Your task to perform on an android device: Open Android settings Image 0: 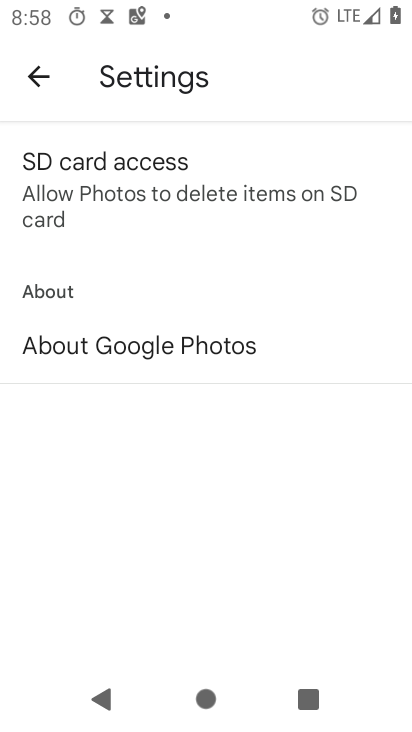
Step 0: press home button
Your task to perform on an android device: Open Android settings Image 1: 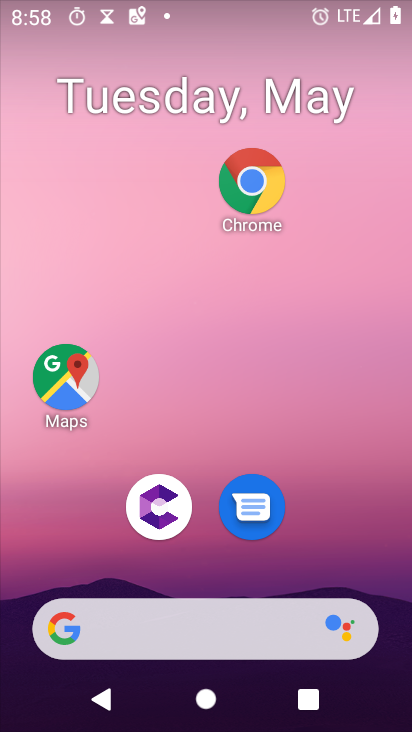
Step 1: drag from (328, 553) to (297, 112)
Your task to perform on an android device: Open Android settings Image 2: 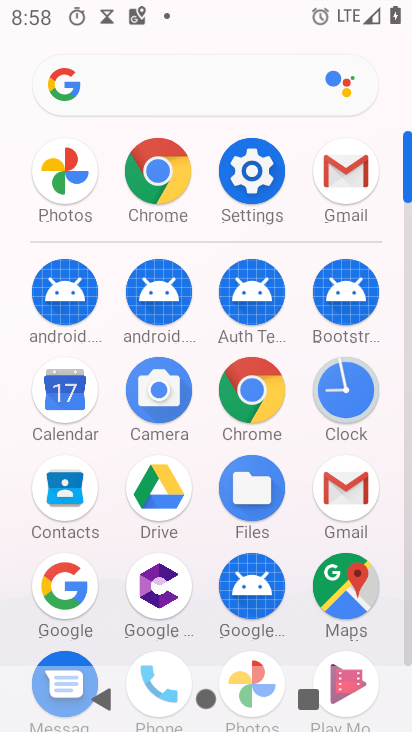
Step 2: click (269, 182)
Your task to perform on an android device: Open Android settings Image 3: 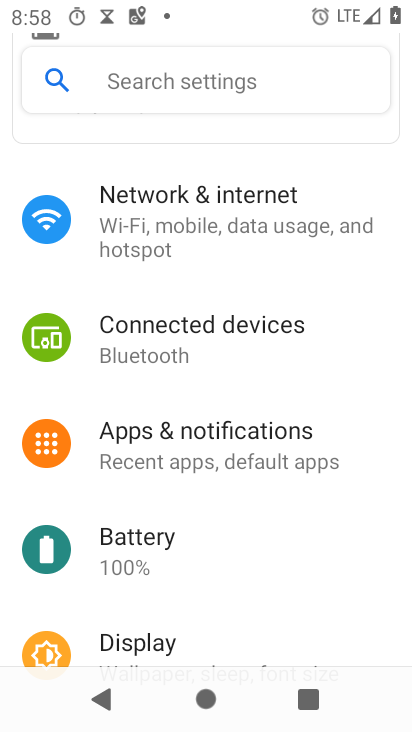
Step 3: drag from (181, 537) to (230, 328)
Your task to perform on an android device: Open Android settings Image 4: 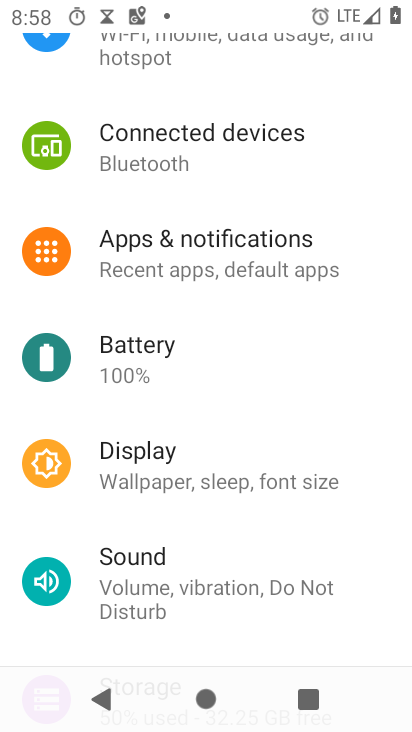
Step 4: drag from (157, 568) to (217, 405)
Your task to perform on an android device: Open Android settings Image 5: 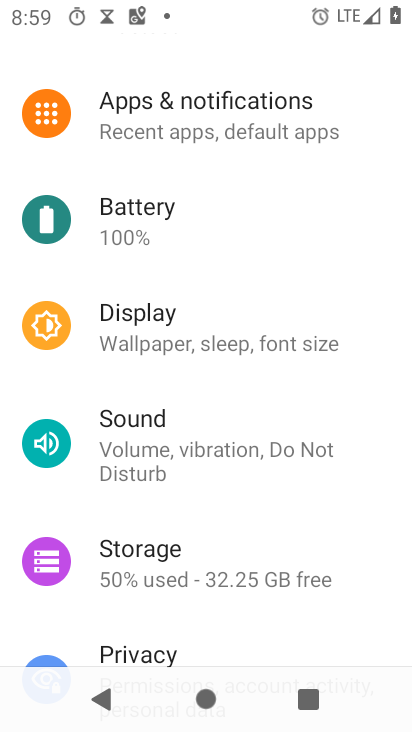
Step 5: drag from (143, 590) to (226, 415)
Your task to perform on an android device: Open Android settings Image 6: 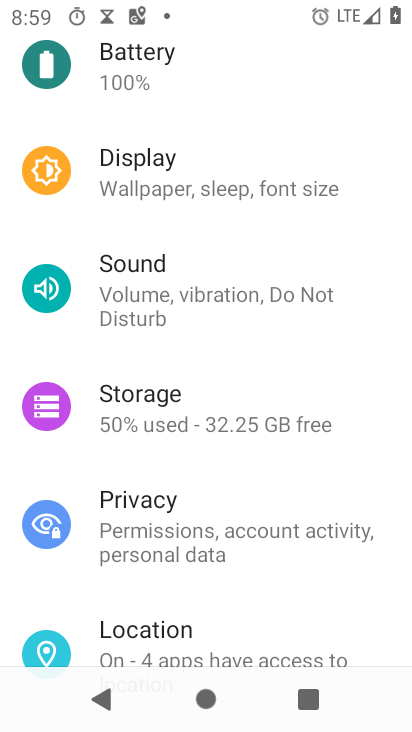
Step 6: drag from (204, 626) to (212, 452)
Your task to perform on an android device: Open Android settings Image 7: 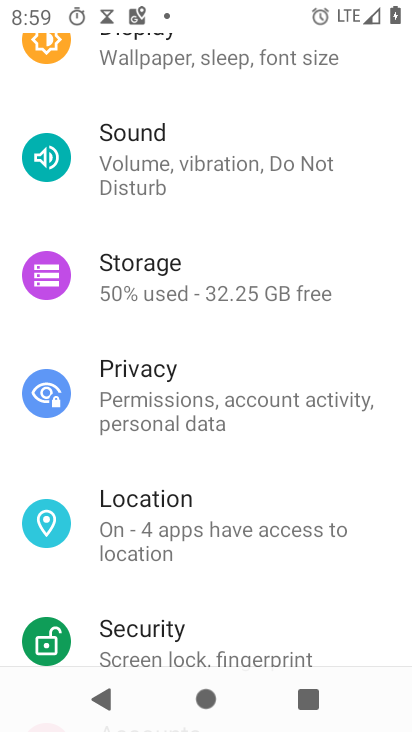
Step 7: drag from (229, 594) to (322, 408)
Your task to perform on an android device: Open Android settings Image 8: 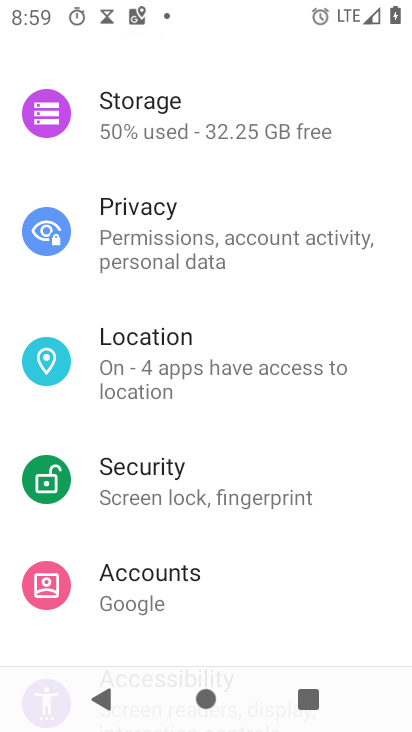
Step 8: drag from (248, 608) to (307, 377)
Your task to perform on an android device: Open Android settings Image 9: 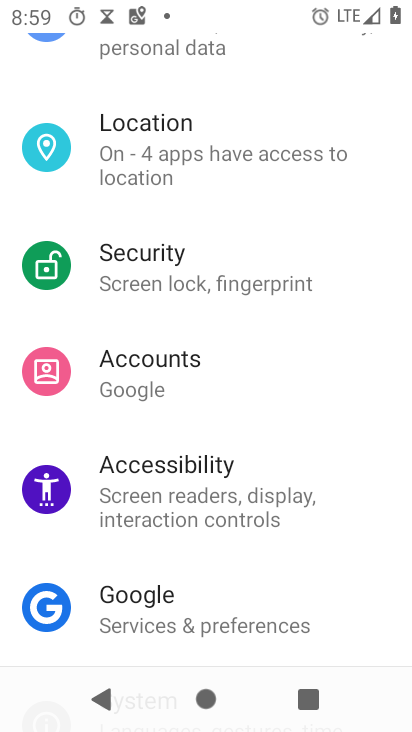
Step 9: drag from (236, 583) to (225, 422)
Your task to perform on an android device: Open Android settings Image 10: 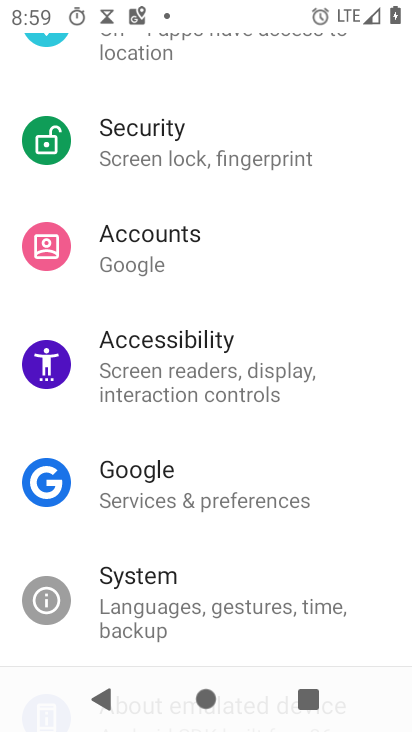
Step 10: click (152, 602)
Your task to perform on an android device: Open Android settings Image 11: 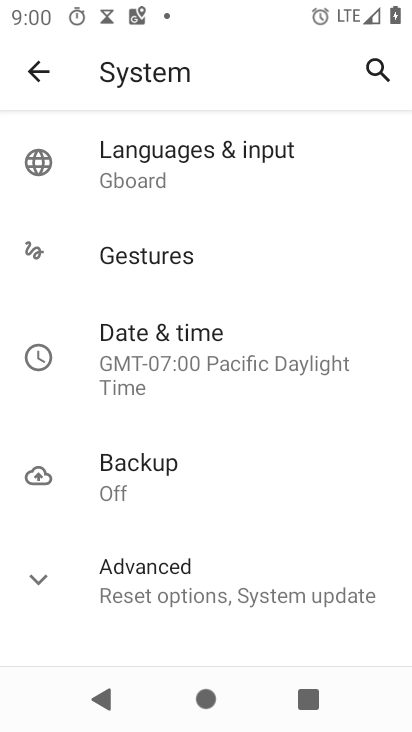
Step 11: task complete